Your task to perform on an android device: Go to calendar. Show me events next week Image 0: 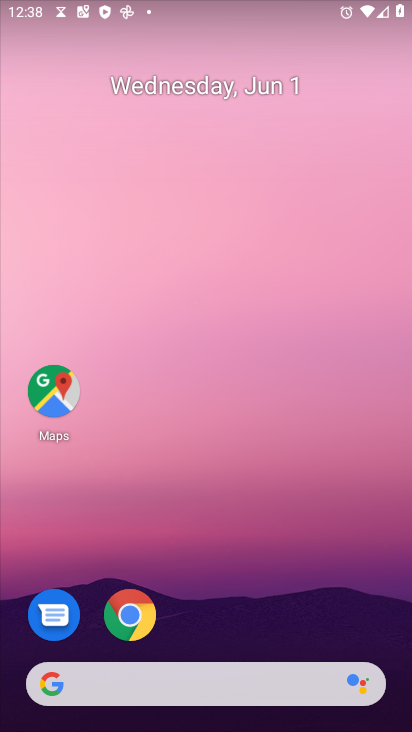
Step 0: drag from (305, 514) to (341, 11)
Your task to perform on an android device: Go to calendar. Show me events next week Image 1: 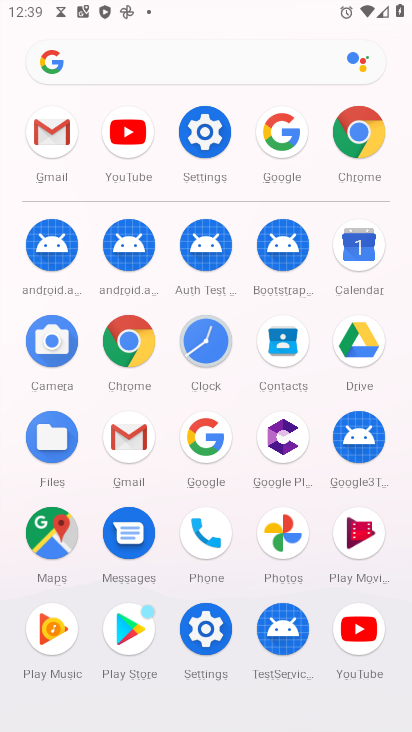
Step 1: click (351, 261)
Your task to perform on an android device: Go to calendar. Show me events next week Image 2: 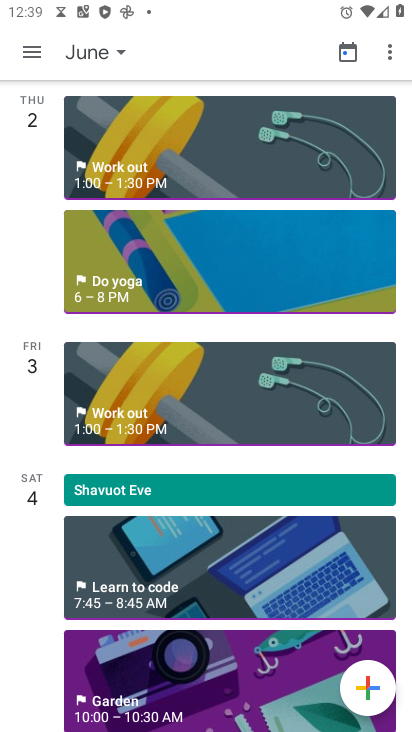
Step 2: click (95, 64)
Your task to perform on an android device: Go to calendar. Show me events next week Image 3: 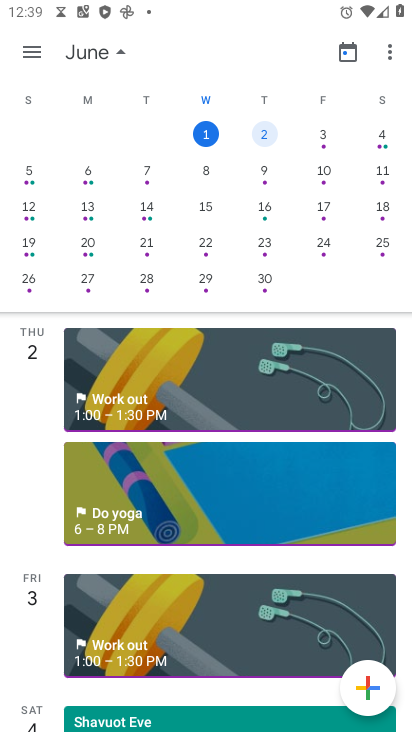
Step 3: click (206, 174)
Your task to perform on an android device: Go to calendar. Show me events next week Image 4: 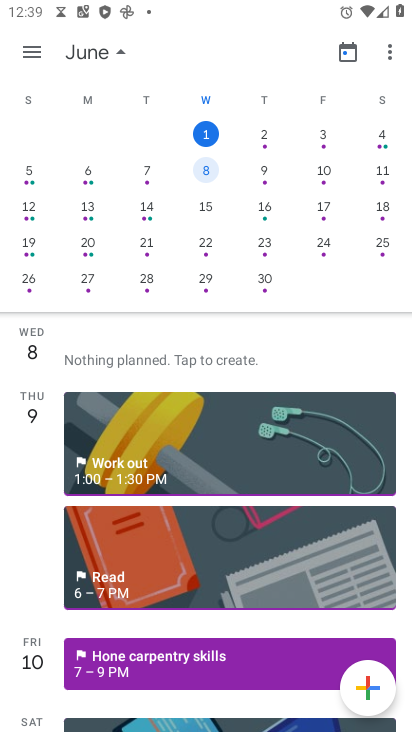
Step 4: task complete